Your task to perform on an android device: turn pop-ups off in chrome Image 0: 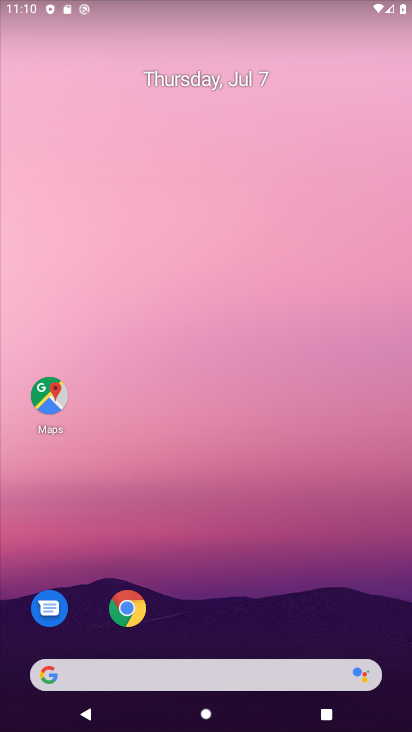
Step 0: drag from (205, 615) to (213, 6)
Your task to perform on an android device: turn pop-ups off in chrome Image 1: 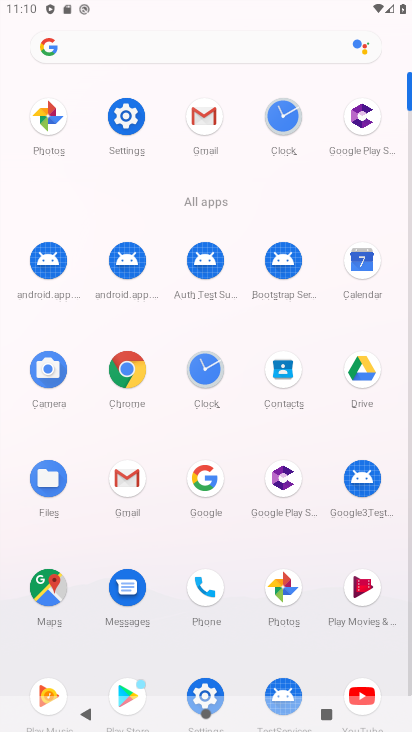
Step 1: click (140, 371)
Your task to perform on an android device: turn pop-ups off in chrome Image 2: 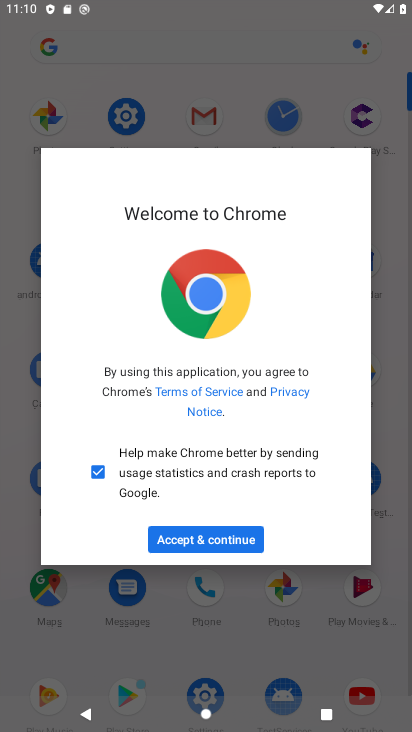
Step 2: click (206, 539)
Your task to perform on an android device: turn pop-ups off in chrome Image 3: 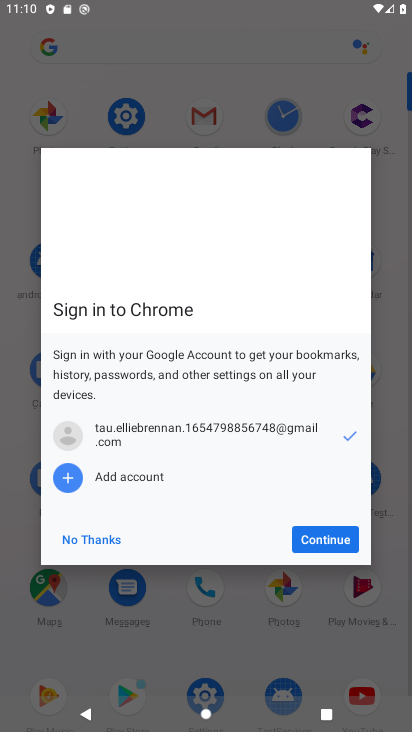
Step 3: click (328, 538)
Your task to perform on an android device: turn pop-ups off in chrome Image 4: 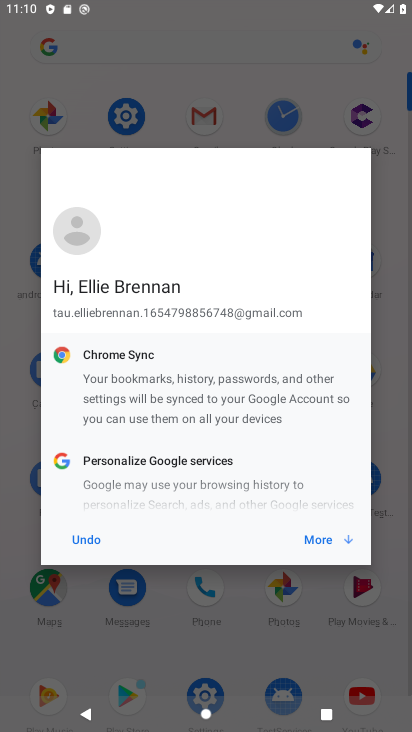
Step 4: click (329, 538)
Your task to perform on an android device: turn pop-ups off in chrome Image 5: 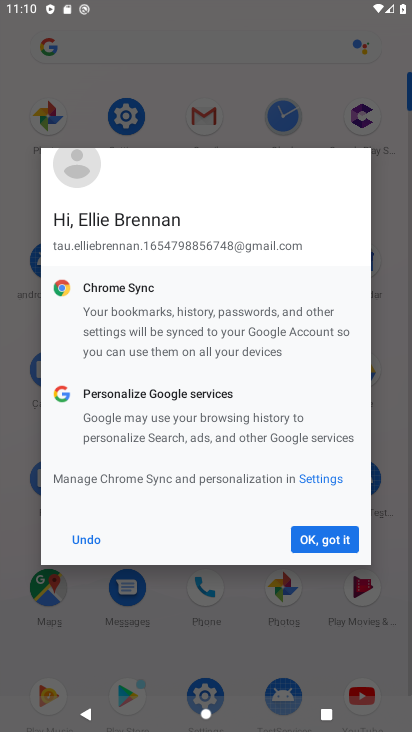
Step 5: click (332, 539)
Your task to perform on an android device: turn pop-ups off in chrome Image 6: 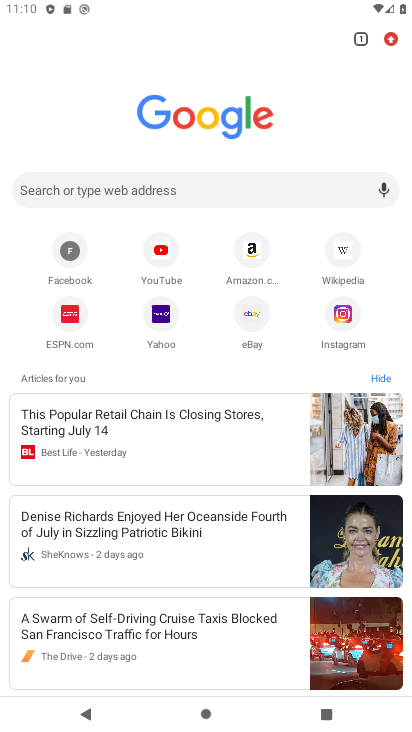
Step 6: click (394, 33)
Your task to perform on an android device: turn pop-ups off in chrome Image 7: 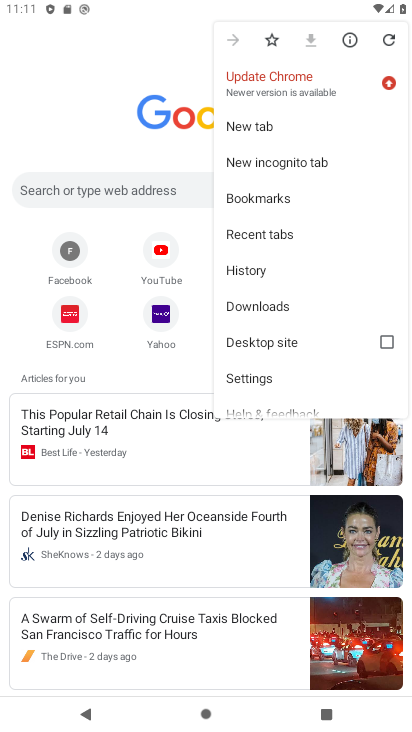
Step 7: click (253, 375)
Your task to perform on an android device: turn pop-ups off in chrome Image 8: 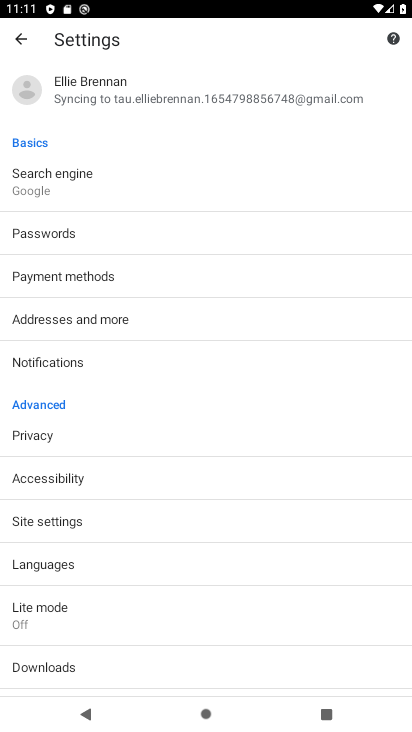
Step 8: click (64, 518)
Your task to perform on an android device: turn pop-ups off in chrome Image 9: 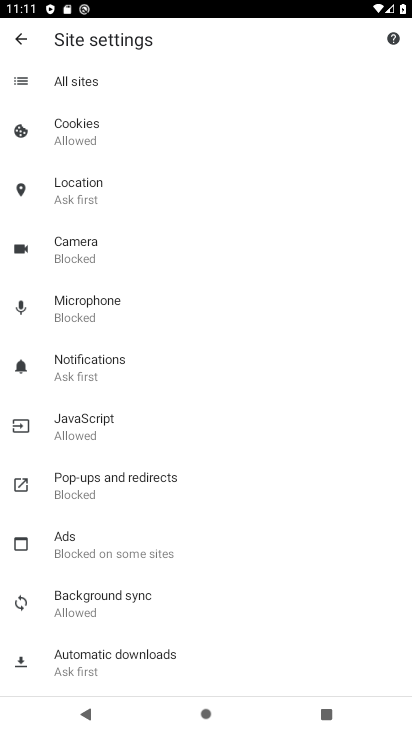
Step 9: click (102, 495)
Your task to perform on an android device: turn pop-ups off in chrome Image 10: 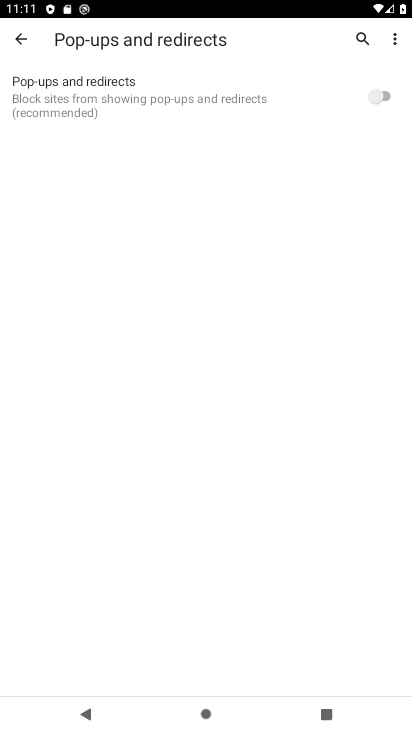
Step 10: task complete